Your task to perform on an android device: Open the map Image 0: 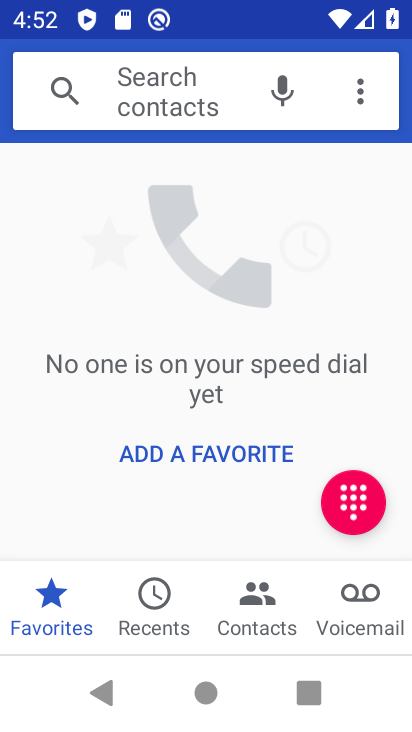
Step 0: drag from (181, 404) to (190, 208)
Your task to perform on an android device: Open the map Image 1: 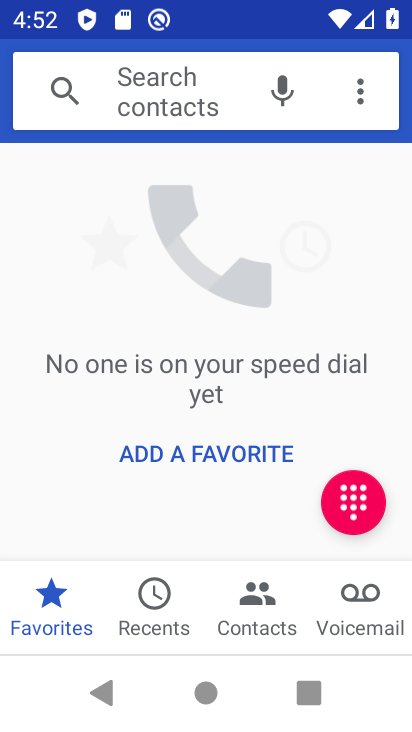
Step 1: press home button
Your task to perform on an android device: Open the map Image 2: 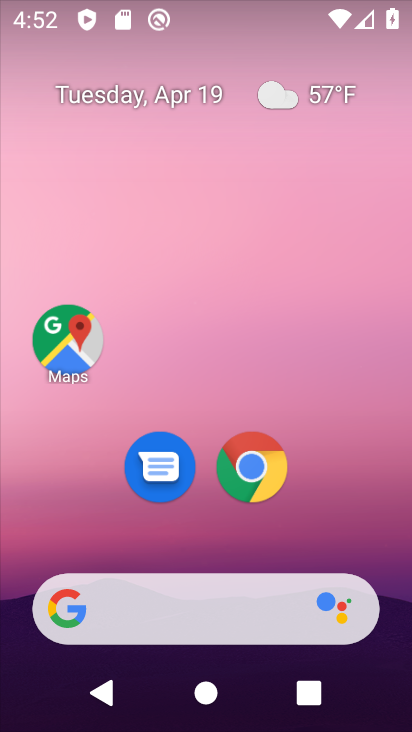
Step 2: click (89, 351)
Your task to perform on an android device: Open the map Image 3: 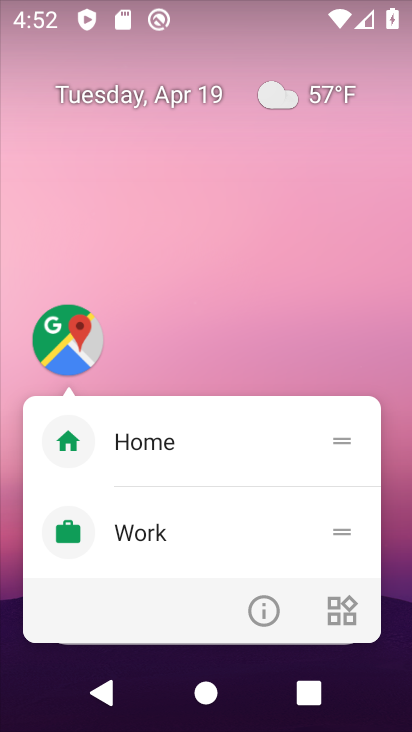
Step 3: click (80, 348)
Your task to perform on an android device: Open the map Image 4: 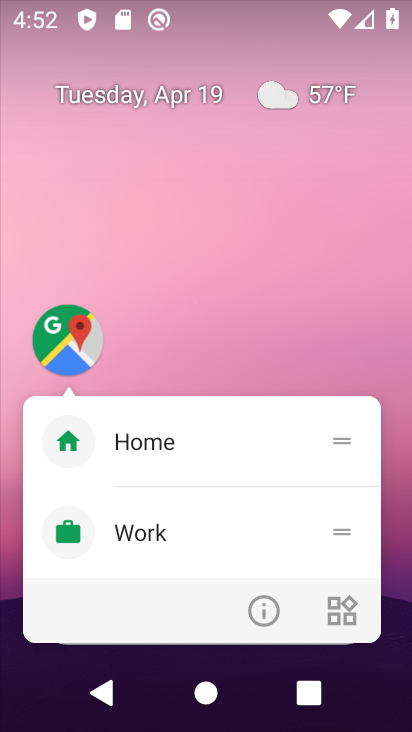
Step 4: click (64, 343)
Your task to perform on an android device: Open the map Image 5: 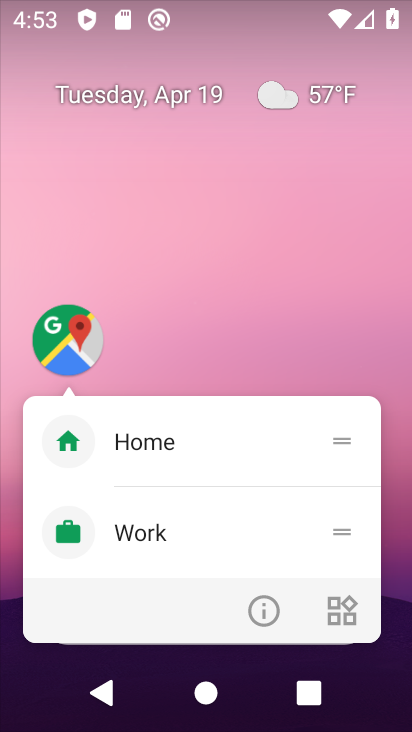
Step 5: click (60, 314)
Your task to perform on an android device: Open the map Image 6: 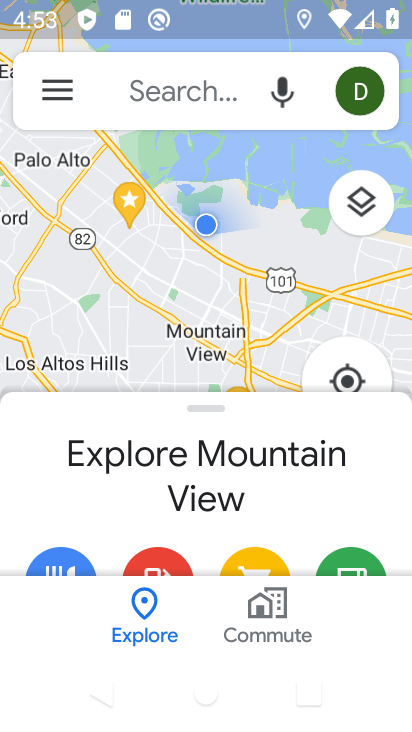
Step 6: press enter
Your task to perform on an android device: Open the map Image 7: 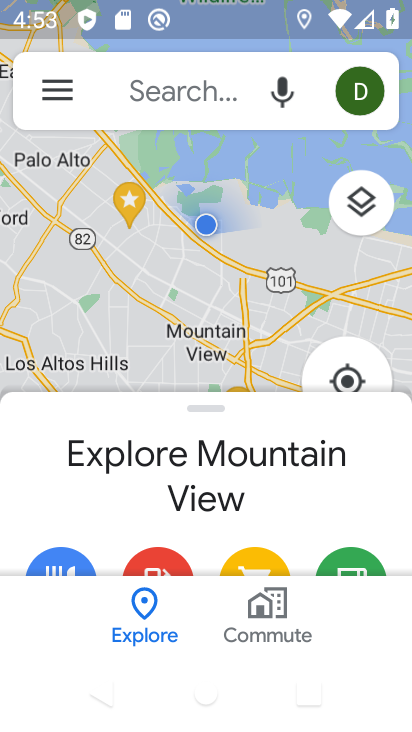
Step 7: task complete